Your task to perform on an android device: toggle notification dots Image 0: 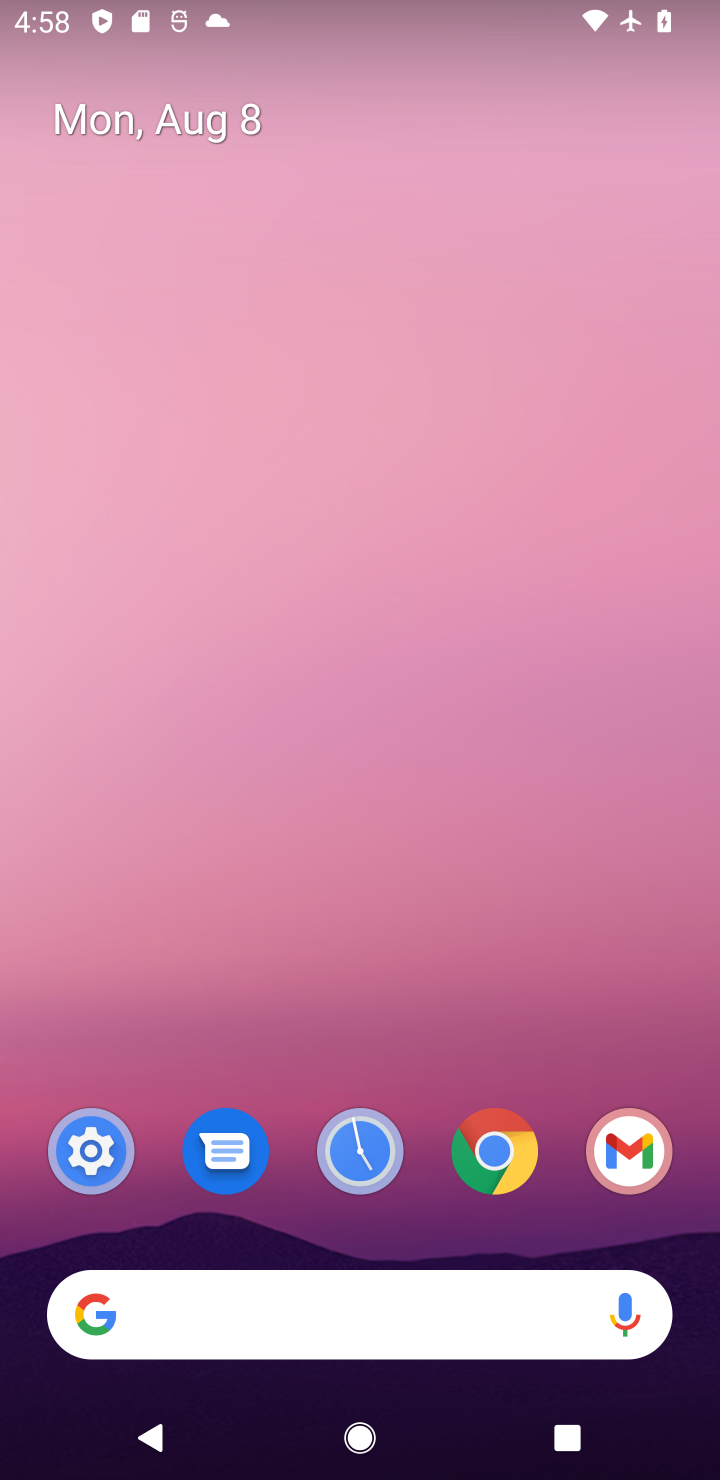
Step 0: click (113, 1148)
Your task to perform on an android device: toggle notification dots Image 1: 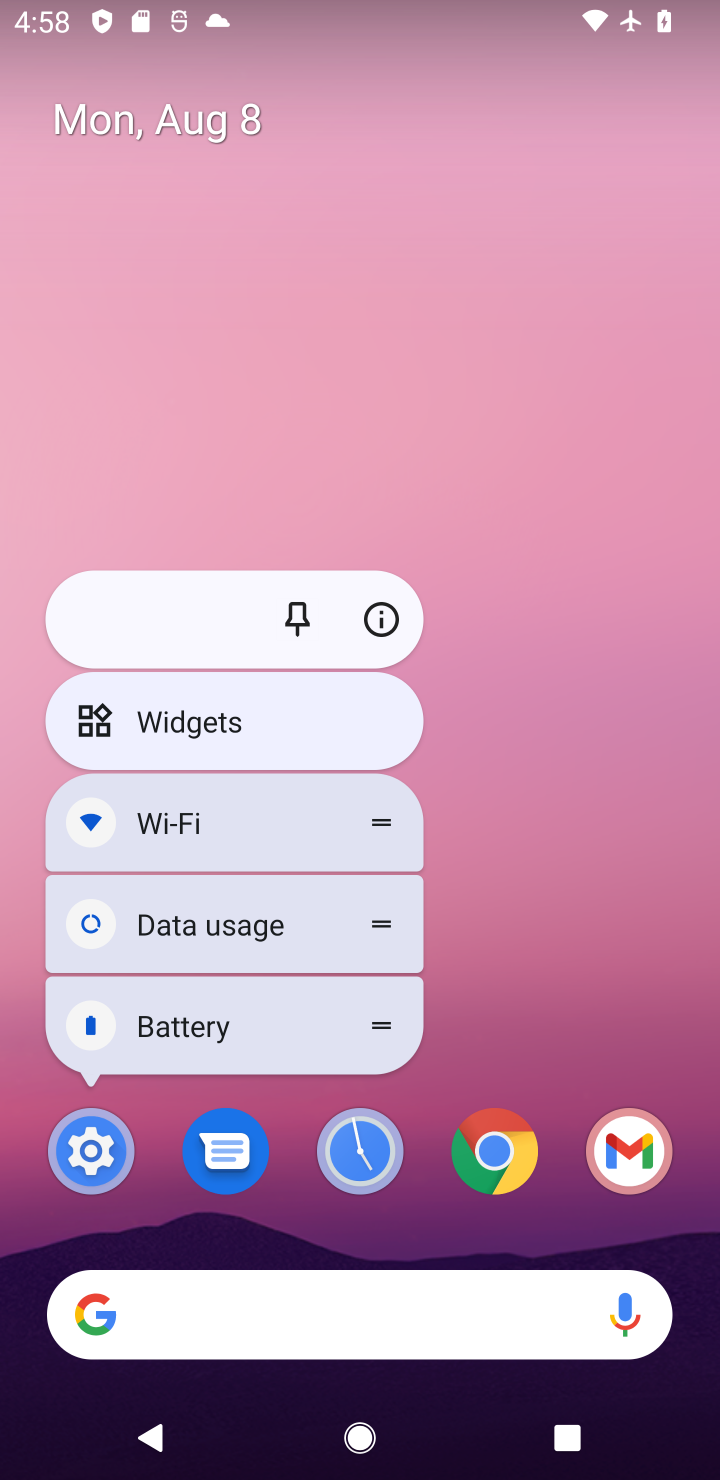
Step 1: click (79, 1159)
Your task to perform on an android device: toggle notification dots Image 2: 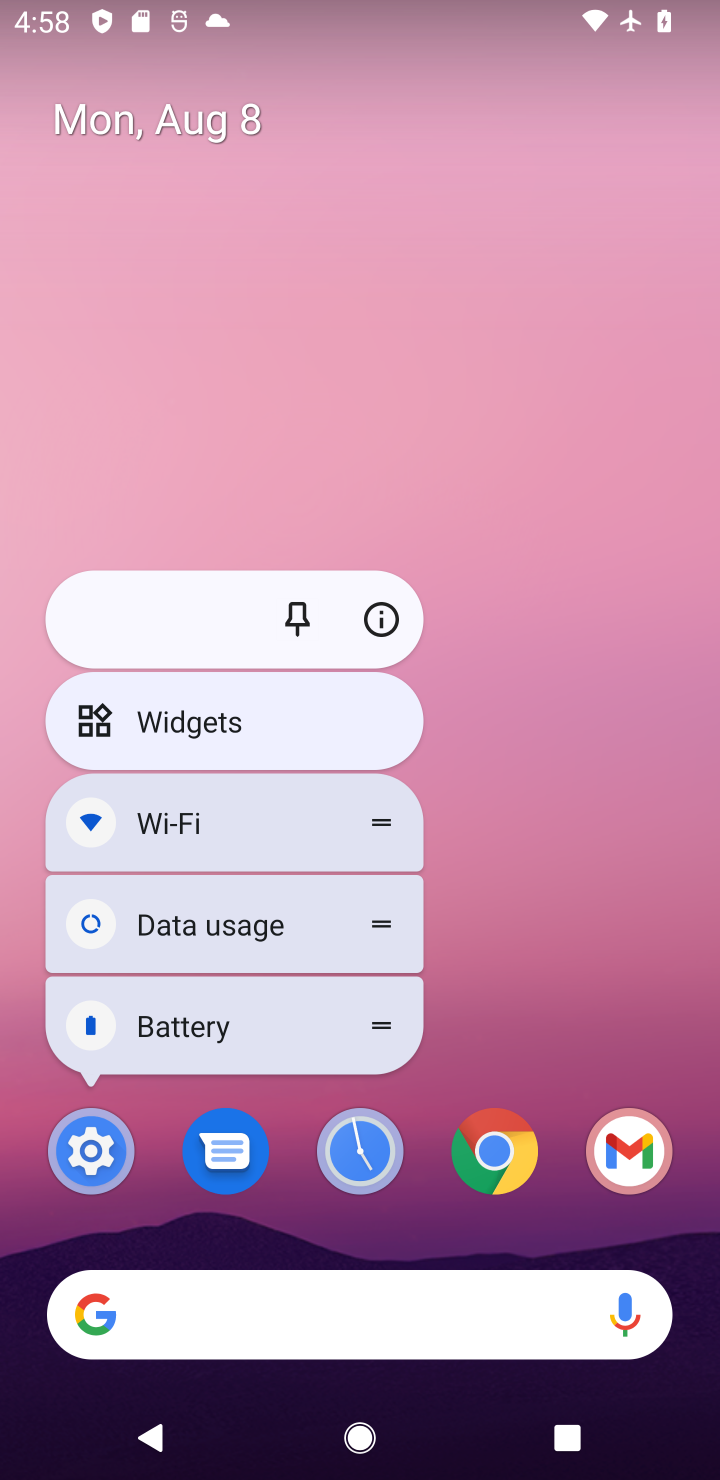
Step 2: click (79, 1159)
Your task to perform on an android device: toggle notification dots Image 3: 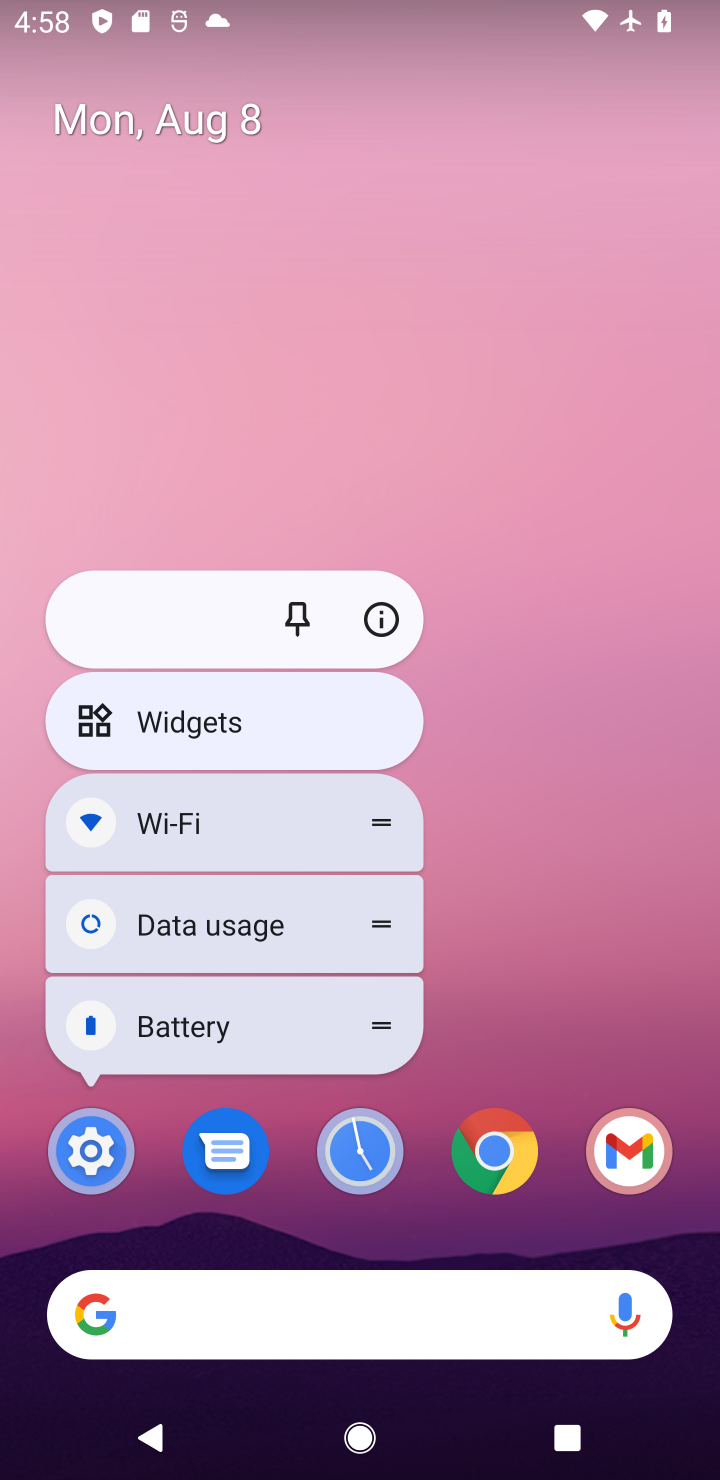
Step 3: click (86, 1174)
Your task to perform on an android device: toggle notification dots Image 4: 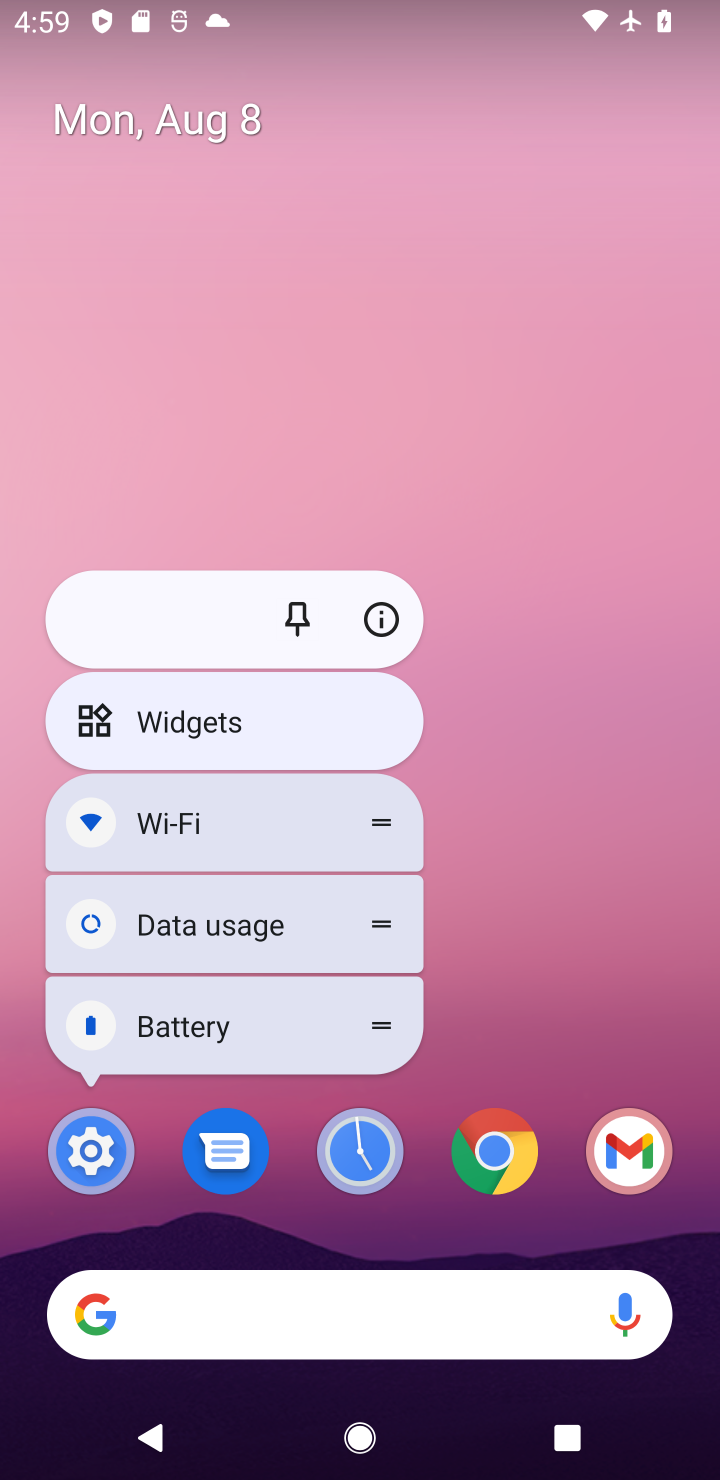
Step 4: click (86, 1174)
Your task to perform on an android device: toggle notification dots Image 5: 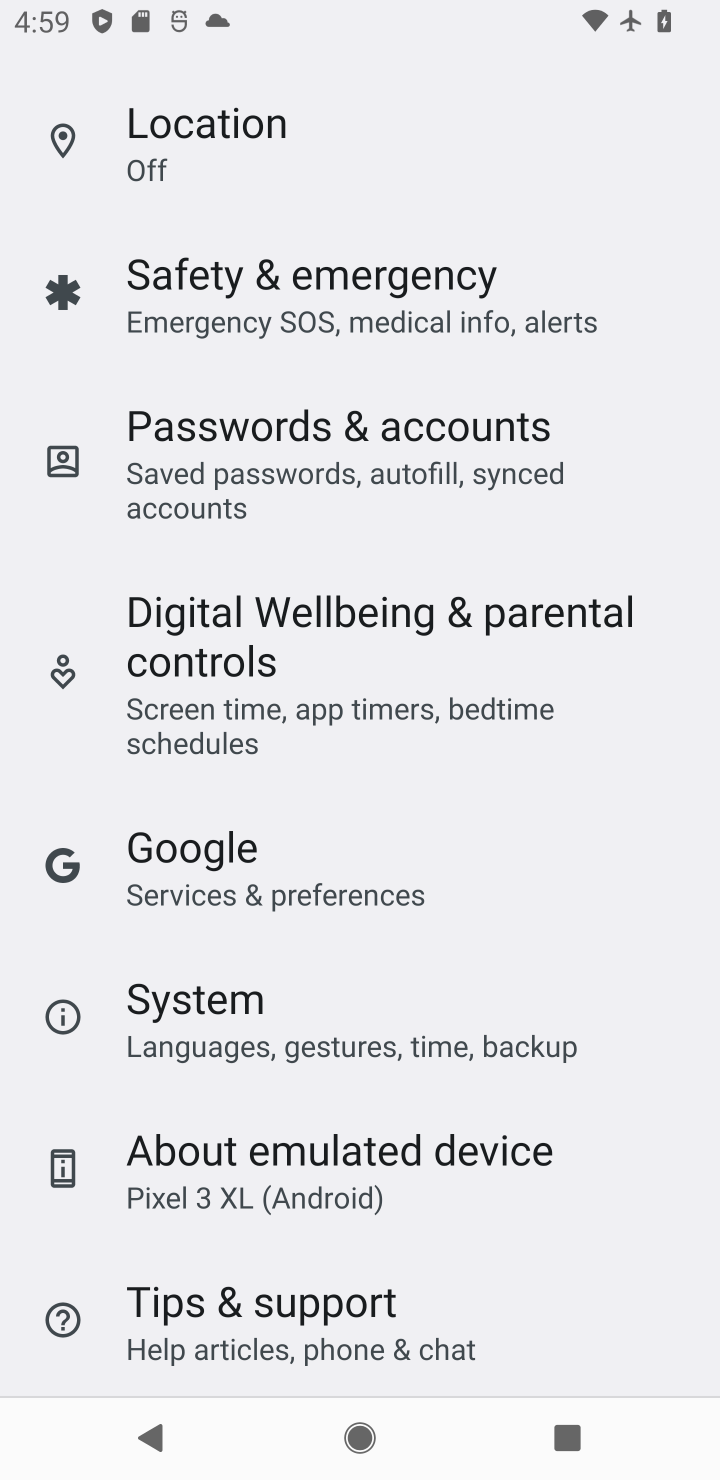
Step 5: drag from (455, 539) to (505, 1166)
Your task to perform on an android device: toggle notification dots Image 6: 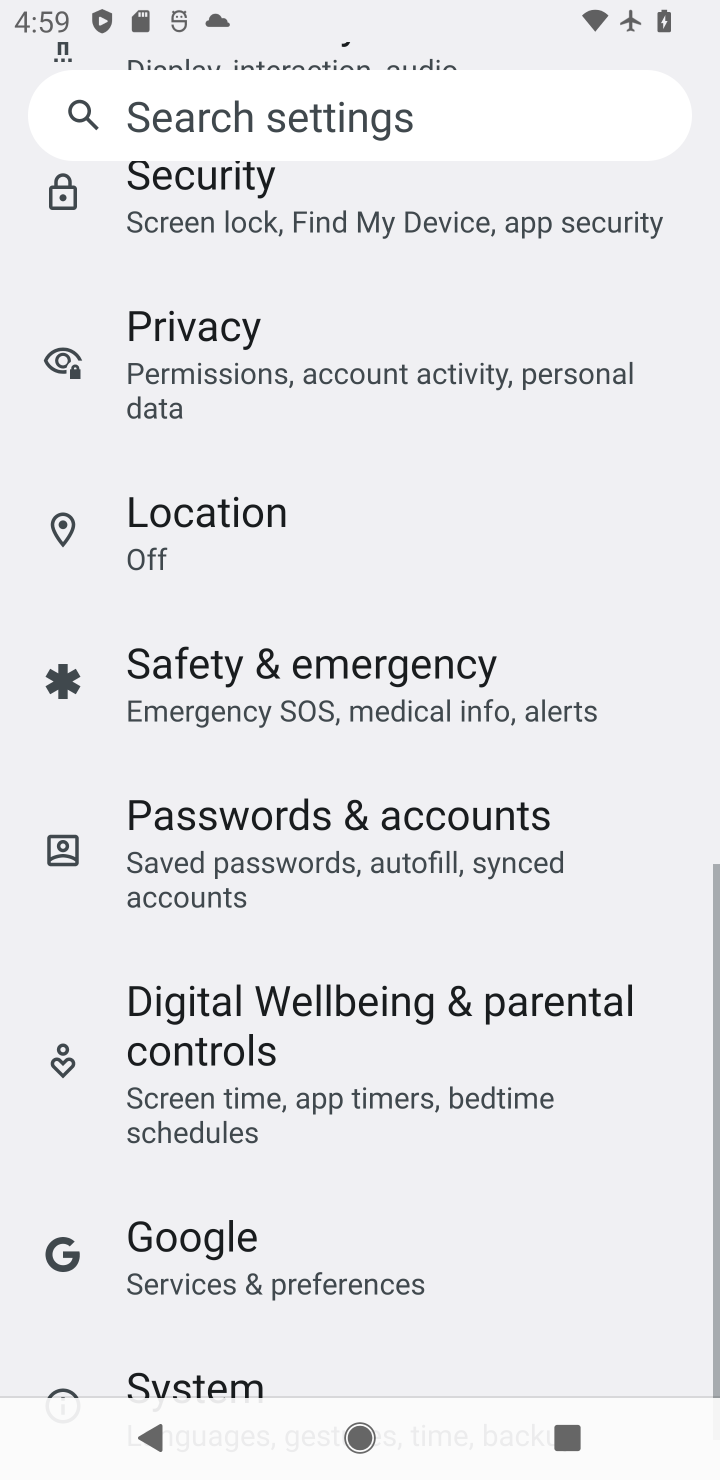
Step 6: drag from (314, 470) to (402, 1118)
Your task to perform on an android device: toggle notification dots Image 7: 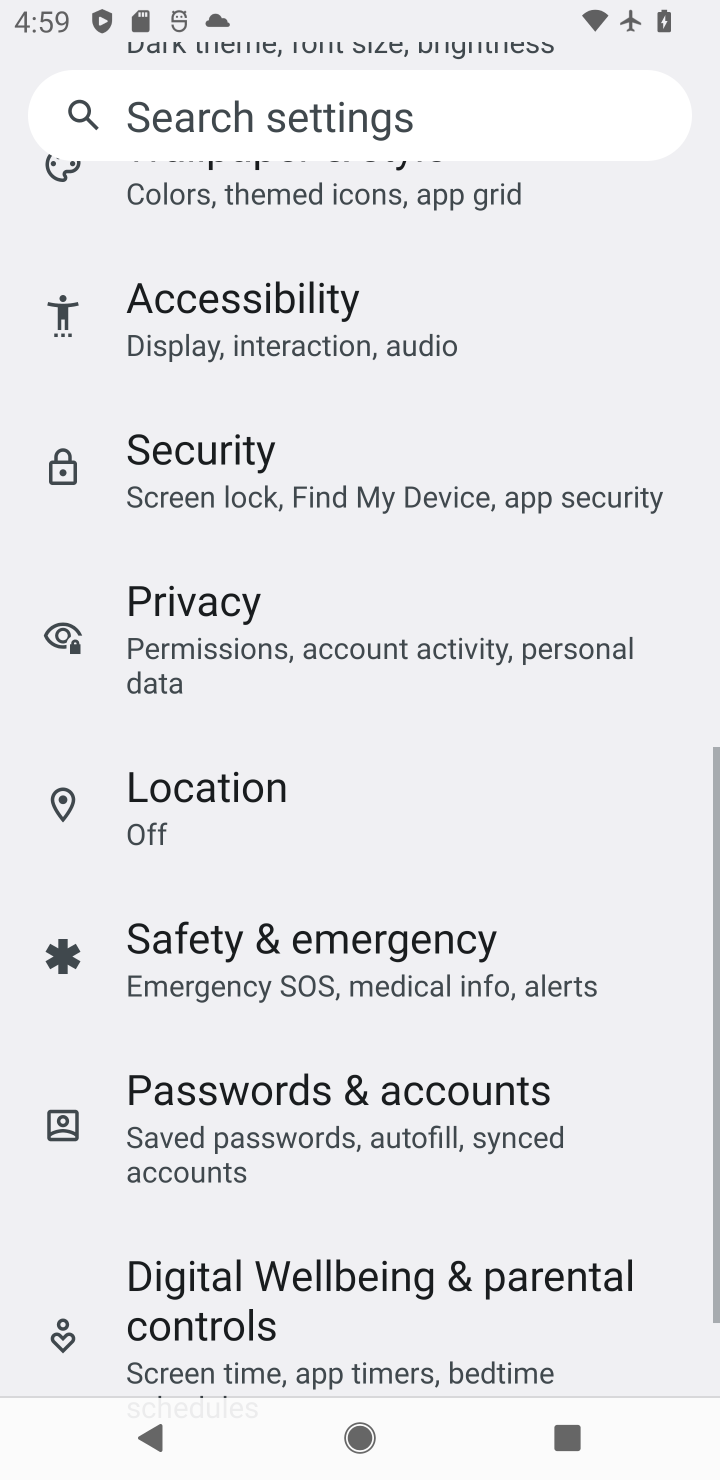
Step 7: drag from (413, 336) to (520, 1023)
Your task to perform on an android device: toggle notification dots Image 8: 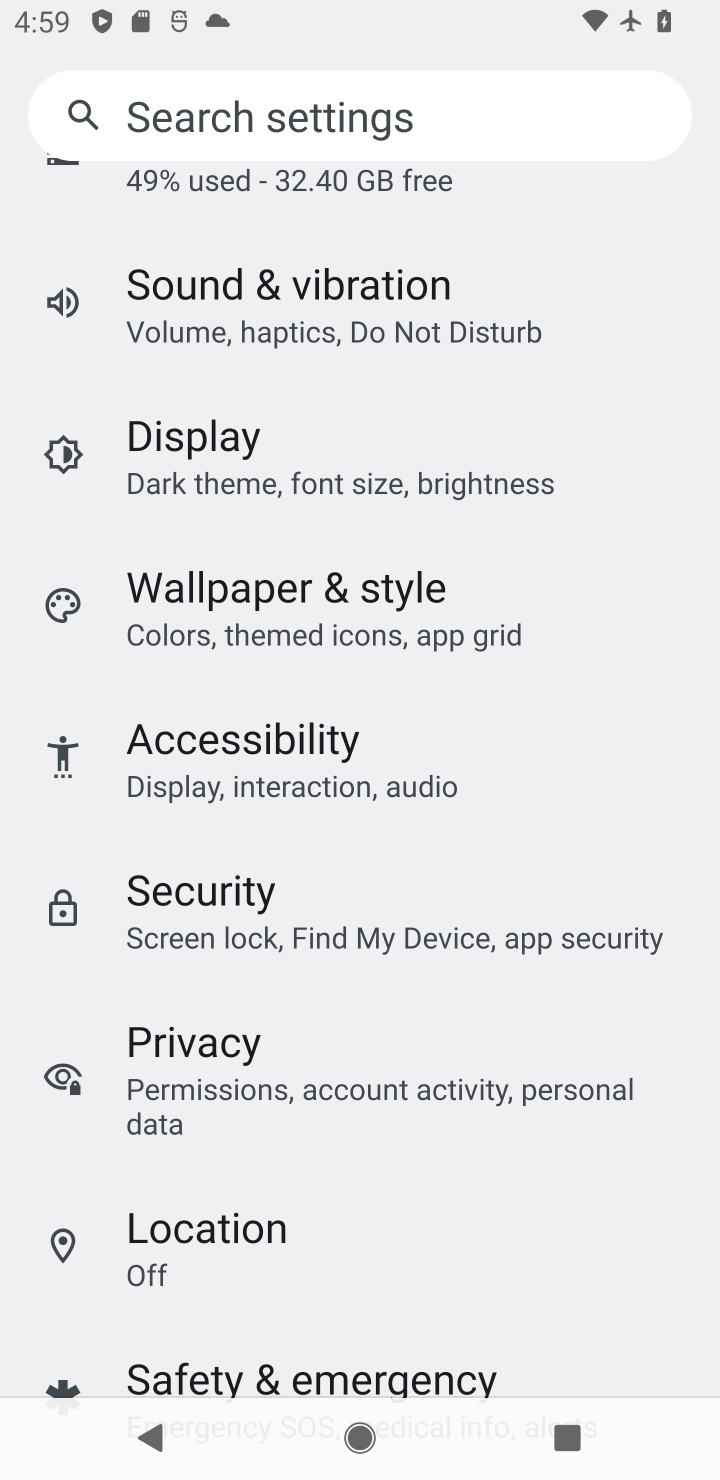
Step 8: drag from (357, 377) to (401, 793)
Your task to perform on an android device: toggle notification dots Image 9: 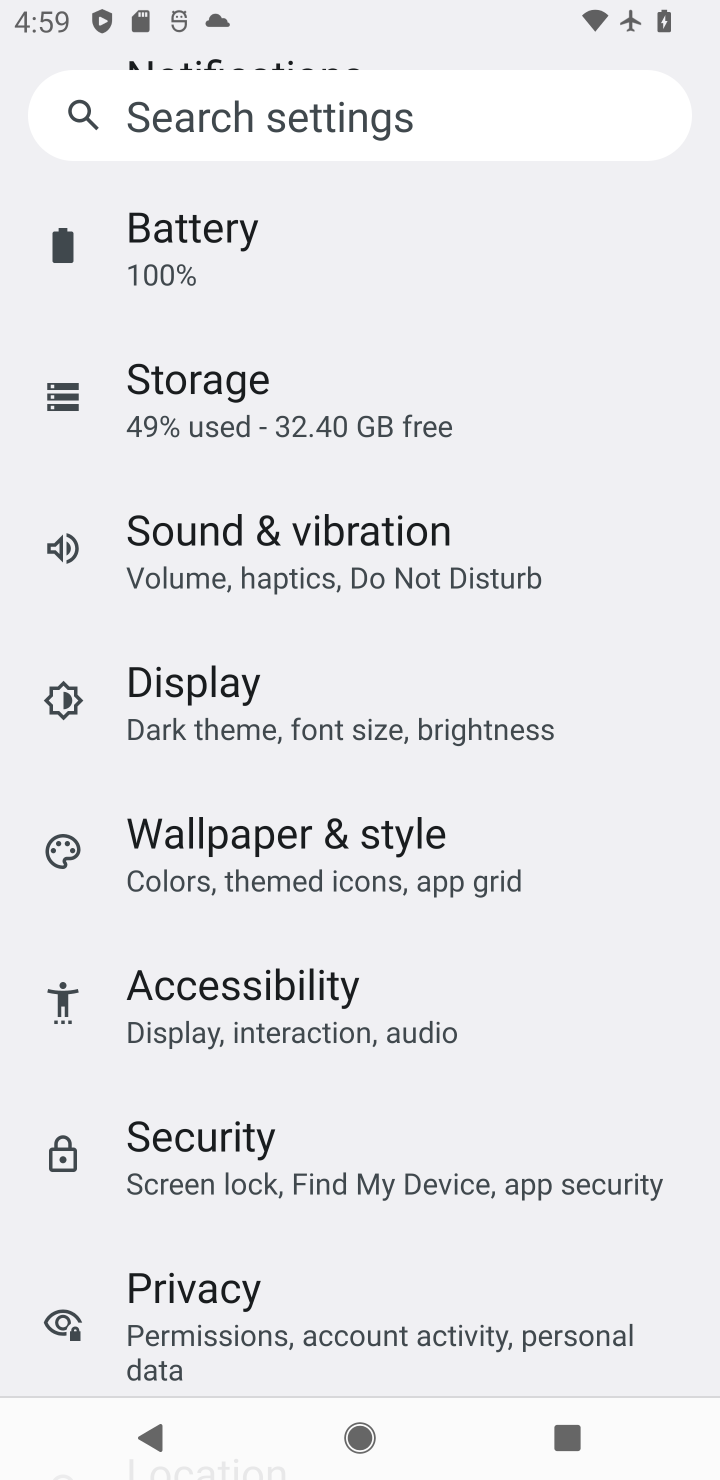
Step 9: drag from (394, 692) to (416, 964)
Your task to perform on an android device: toggle notification dots Image 10: 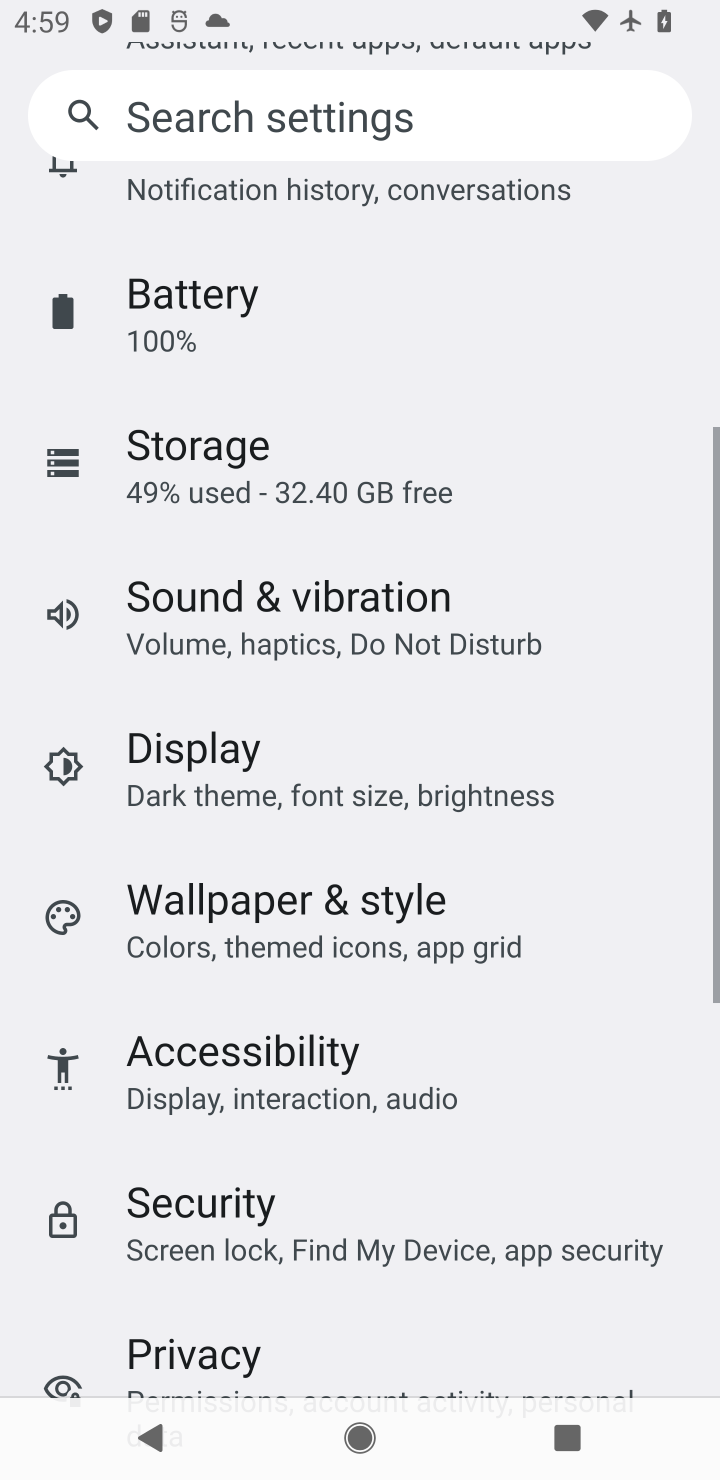
Step 10: drag from (351, 513) to (341, 589)
Your task to perform on an android device: toggle notification dots Image 11: 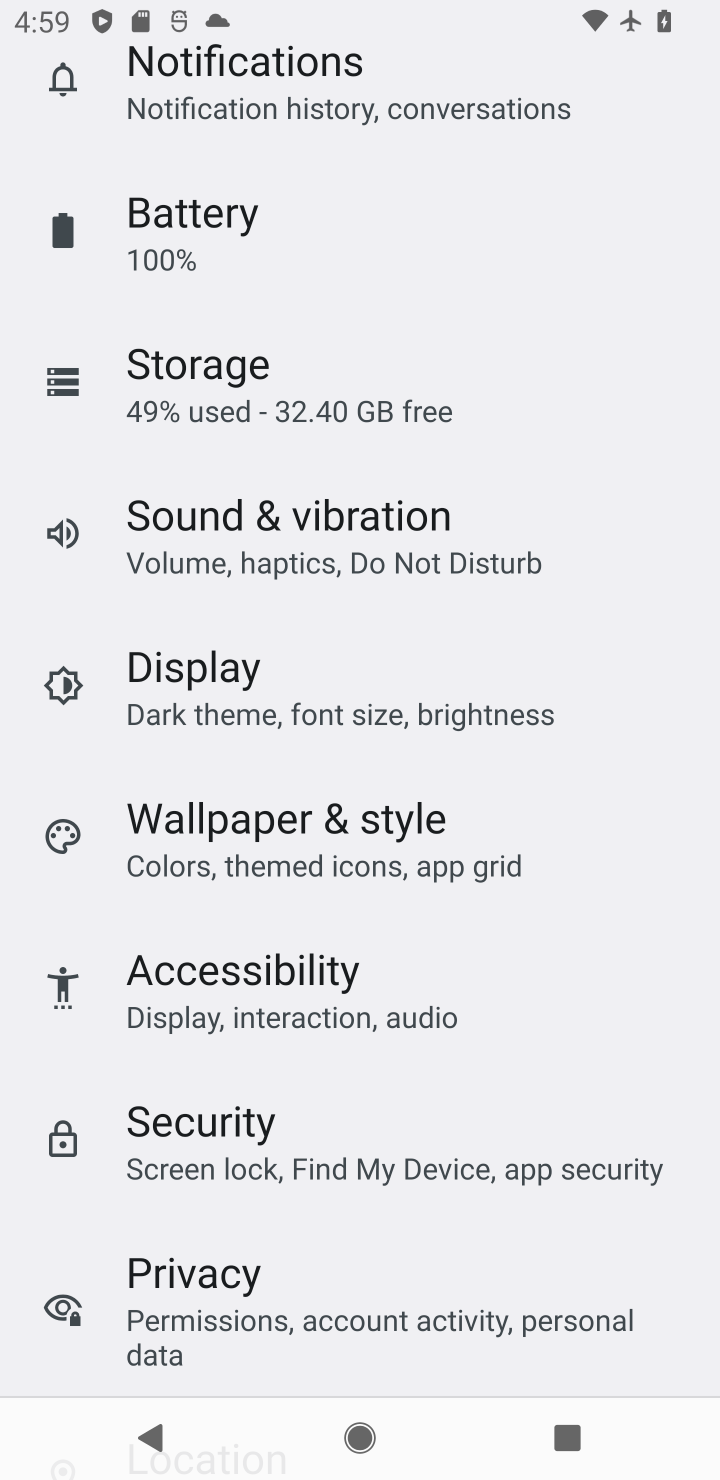
Step 11: click (295, 128)
Your task to perform on an android device: toggle notification dots Image 12: 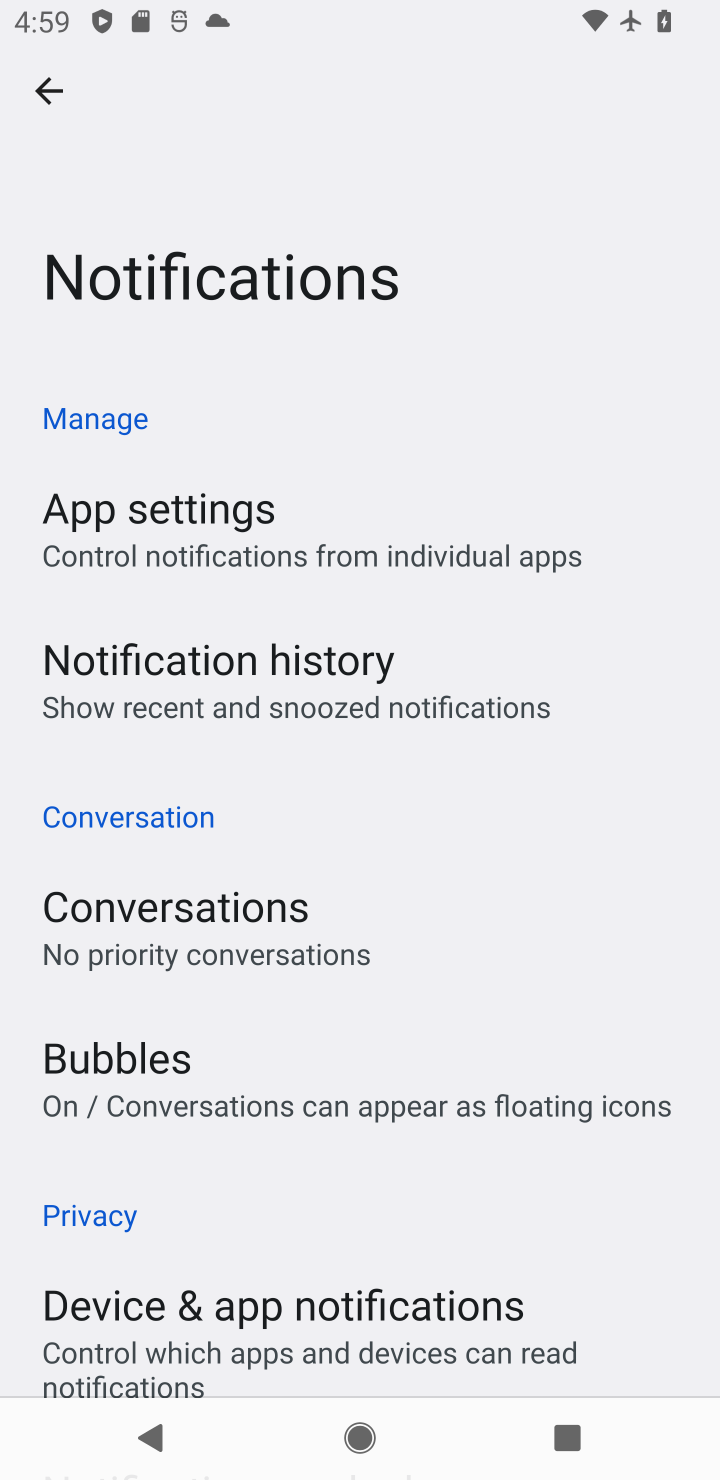
Step 12: drag from (350, 1103) to (378, 544)
Your task to perform on an android device: toggle notification dots Image 13: 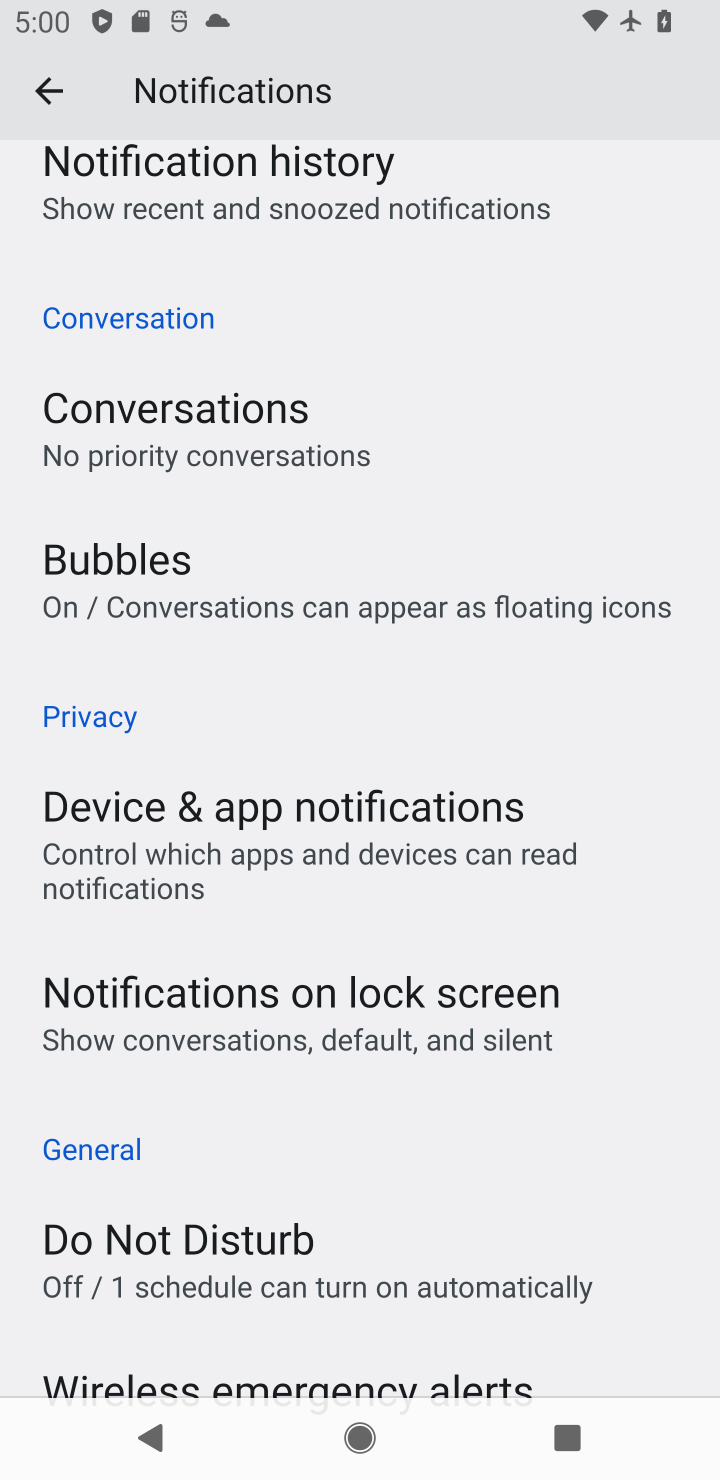
Step 13: drag from (393, 1141) to (408, 412)
Your task to perform on an android device: toggle notification dots Image 14: 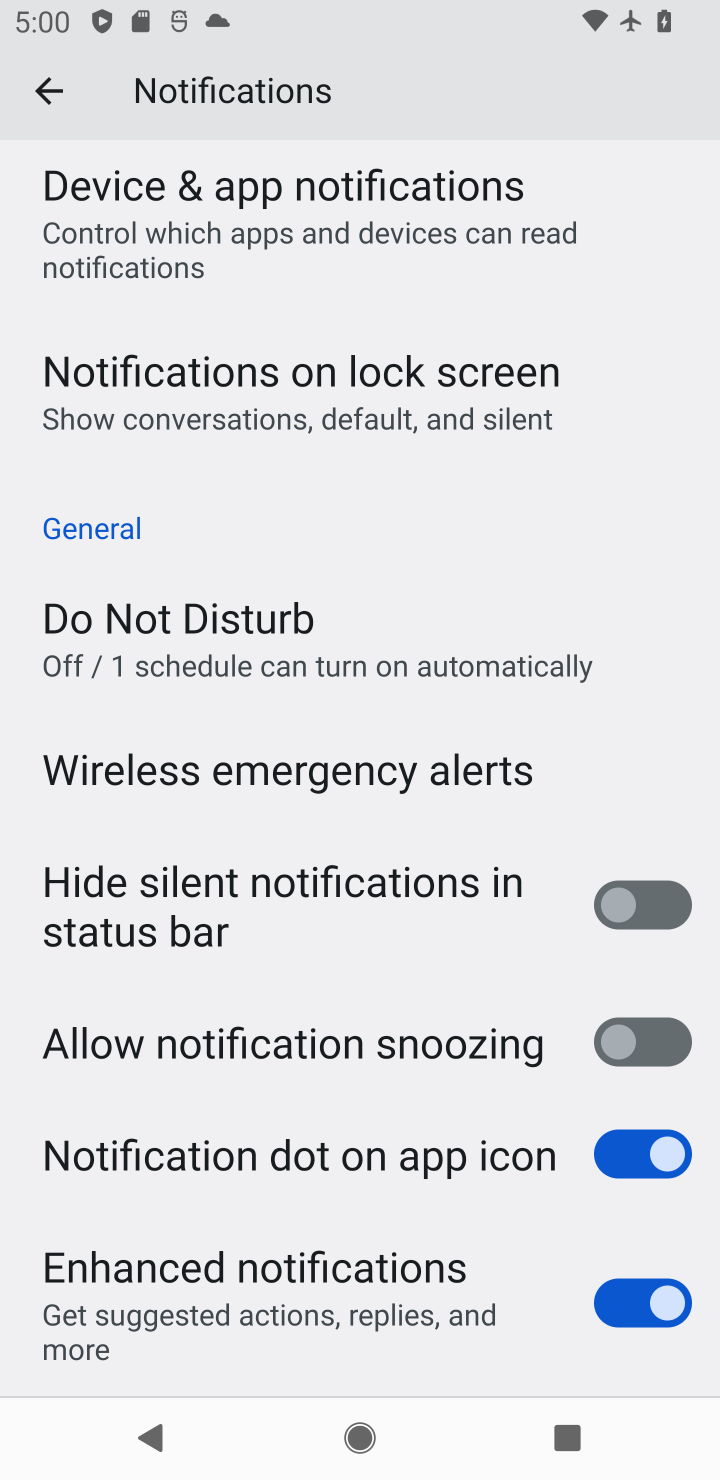
Step 14: click (609, 1146)
Your task to perform on an android device: toggle notification dots Image 15: 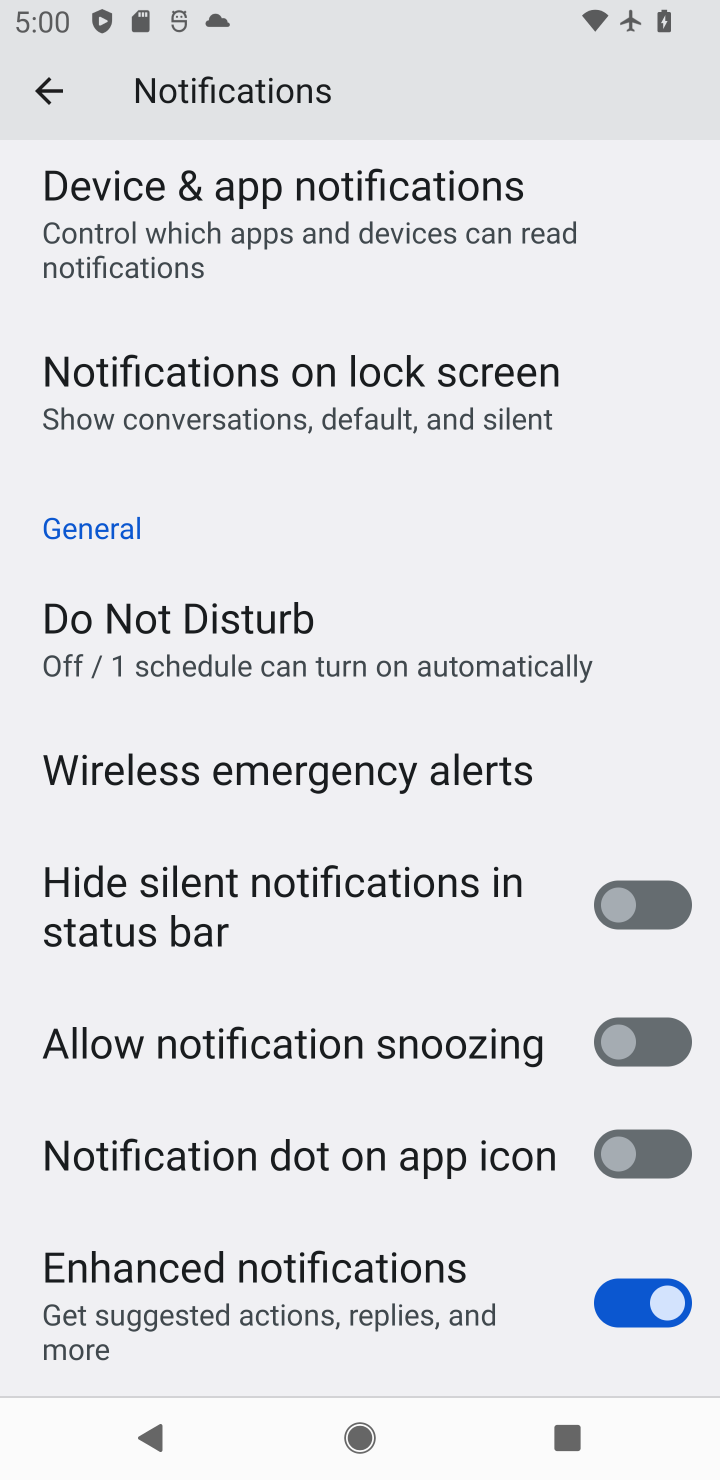
Step 15: task complete